Your task to perform on an android device: Add logitech g933 to the cart on walmart.com, then select checkout. Image 0: 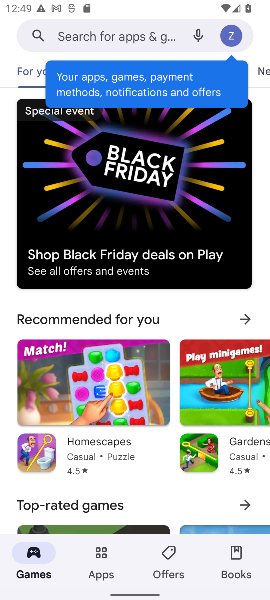
Step 0: press home button
Your task to perform on an android device: Add logitech g933 to the cart on walmart.com, then select checkout. Image 1: 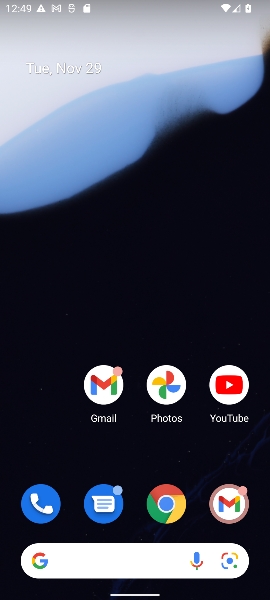
Step 1: click (167, 504)
Your task to perform on an android device: Add logitech g933 to the cart on walmart.com, then select checkout. Image 2: 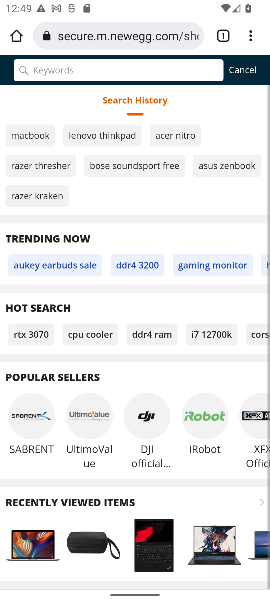
Step 2: click (103, 39)
Your task to perform on an android device: Add logitech g933 to the cart on walmart.com, then select checkout. Image 3: 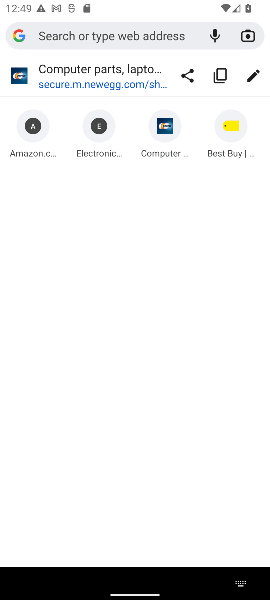
Step 3: type "walmart.com"
Your task to perform on an android device: Add logitech g933 to the cart on walmart.com, then select checkout. Image 4: 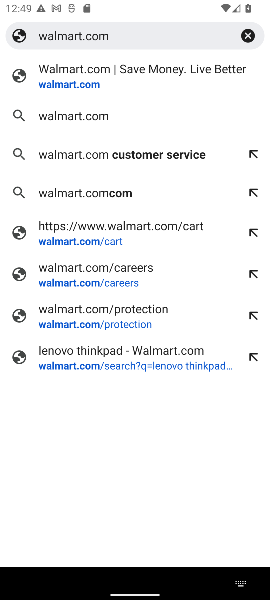
Step 4: click (57, 82)
Your task to perform on an android device: Add logitech g933 to the cart on walmart.com, then select checkout. Image 5: 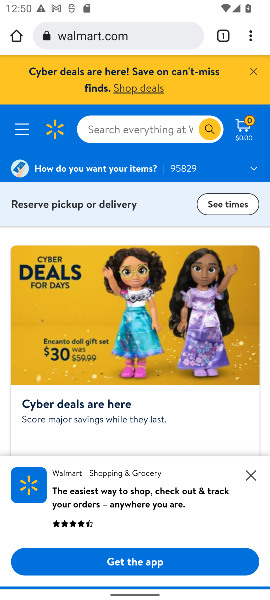
Step 5: click (106, 134)
Your task to perform on an android device: Add logitech g933 to the cart on walmart.com, then select checkout. Image 6: 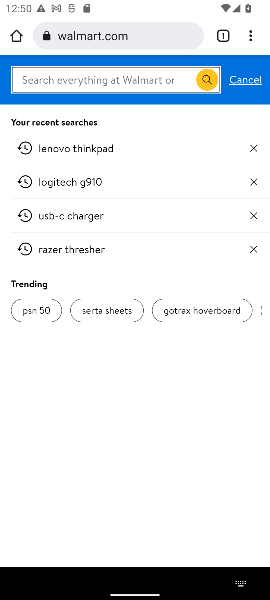
Step 6: type "logitech g933"
Your task to perform on an android device: Add logitech g933 to the cart on walmart.com, then select checkout. Image 7: 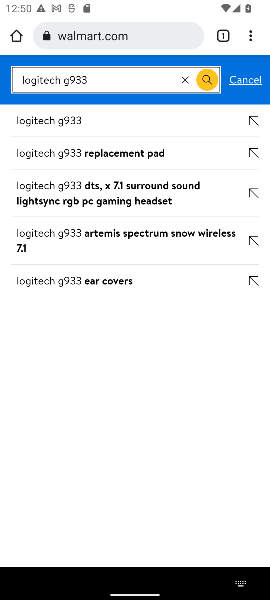
Step 7: click (55, 119)
Your task to perform on an android device: Add logitech g933 to the cart on walmart.com, then select checkout. Image 8: 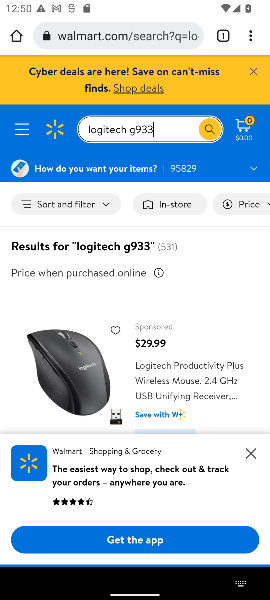
Step 8: drag from (177, 299) to (181, 207)
Your task to perform on an android device: Add logitech g933 to the cart on walmart.com, then select checkout. Image 9: 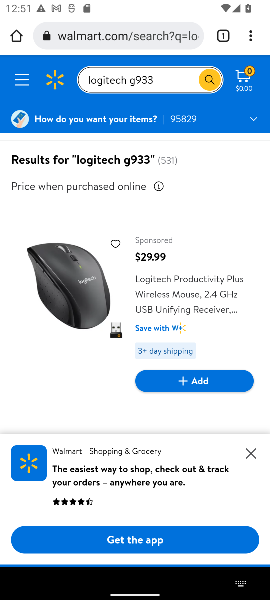
Step 9: click (248, 450)
Your task to perform on an android device: Add logitech g933 to the cart on walmart.com, then select checkout. Image 10: 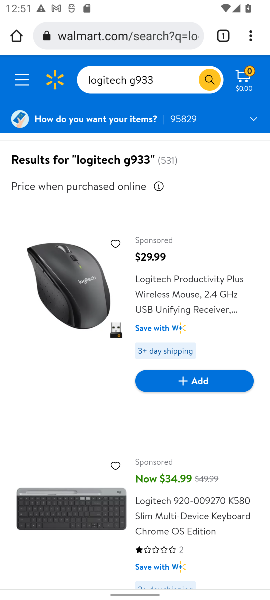
Step 10: drag from (199, 410) to (200, 250)
Your task to perform on an android device: Add logitech g933 to the cart on walmart.com, then select checkout. Image 11: 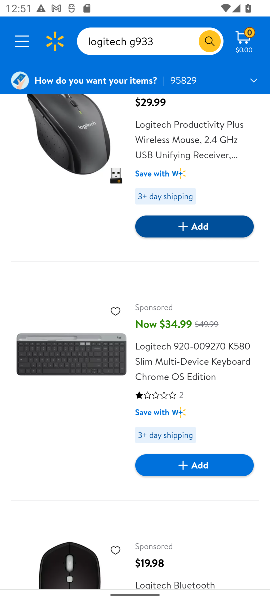
Step 11: drag from (209, 426) to (207, 250)
Your task to perform on an android device: Add logitech g933 to the cart on walmart.com, then select checkout. Image 12: 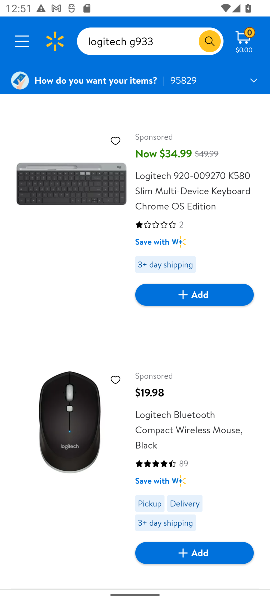
Step 12: drag from (220, 480) to (207, 276)
Your task to perform on an android device: Add logitech g933 to the cart on walmart.com, then select checkout. Image 13: 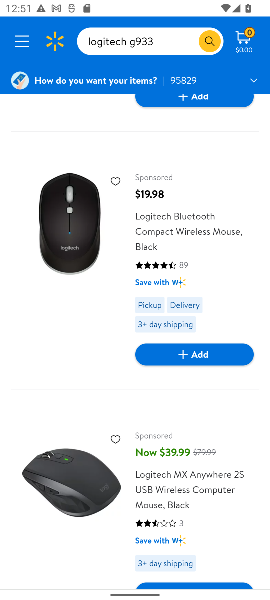
Step 13: drag from (231, 525) to (215, 305)
Your task to perform on an android device: Add logitech g933 to the cart on walmart.com, then select checkout. Image 14: 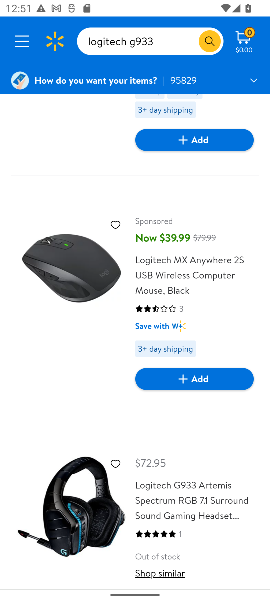
Step 14: drag from (225, 453) to (227, 312)
Your task to perform on an android device: Add logitech g933 to the cart on walmart.com, then select checkout. Image 15: 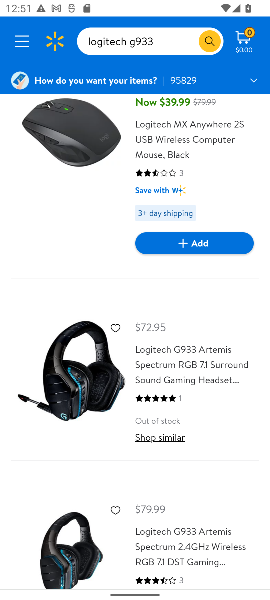
Step 15: drag from (226, 468) to (213, 295)
Your task to perform on an android device: Add logitech g933 to the cart on walmart.com, then select checkout. Image 16: 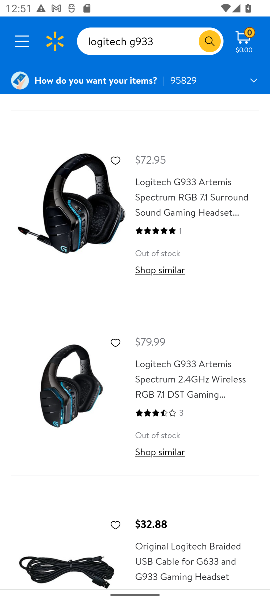
Step 16: drag from (223, 480) to (209, 334)
Your task to perform on an android device: Add logitech g933 to the cart on walmart.com, then select checkout. Image 17: 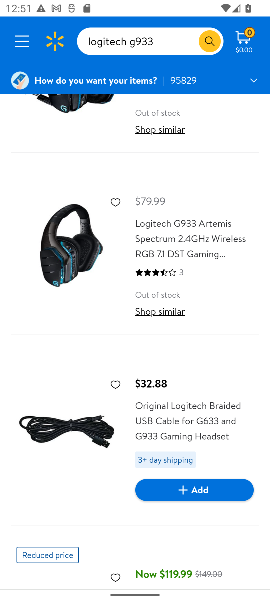
Step 17: click (187, 495)
Your task to perform on an android device: Add logitech g933 to the cart on walmart.com, then select checkout. Image 18: 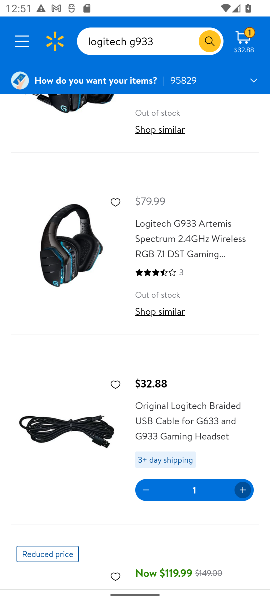
Step 18: click (245, 34)
Your task to perform on an android device: Add logitech g933 to the cart on walmart.com, then select checkout. Image 19: 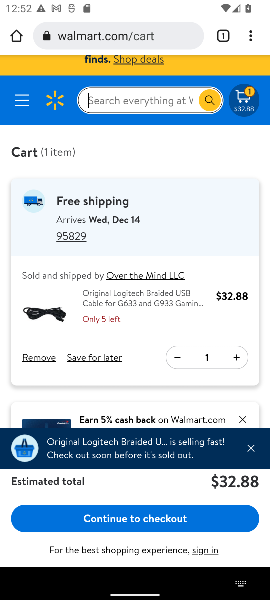
Step 19: click (133, 519)
Your task to perform on an android device: Add logitech g933 to the cart on walmart.com, then select checkout. Image 20: 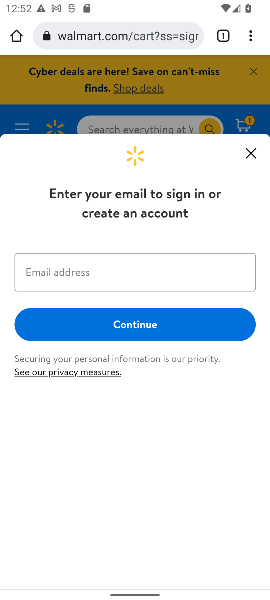
Step 20: task complete